Your task to perform on an android device: open a new tab in the chrome app Image 0: 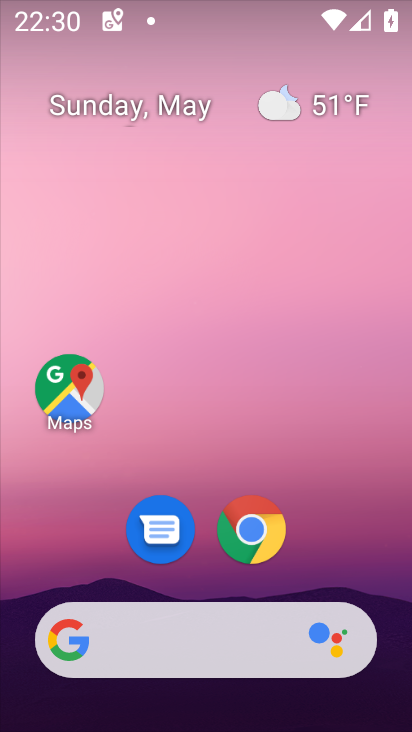
Step 0: drag from (245, 579) to (252, 28)
Your task to perform on an android device: open a new tab in the chrome app Image 1: 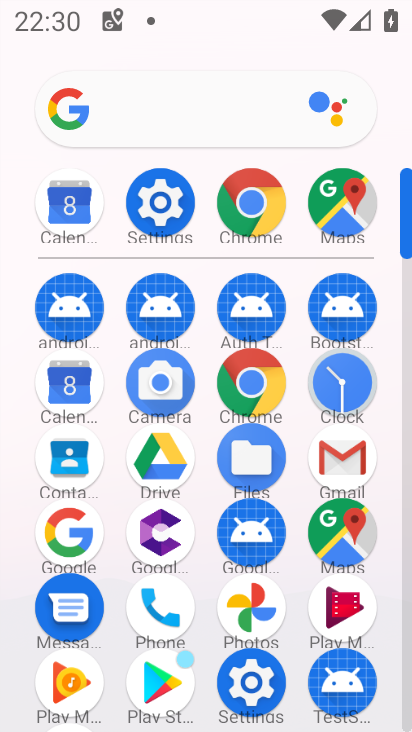
Step 1: click (255, 396)
Your task to perform on an android device: open a new tab in the chrome app Image 2: 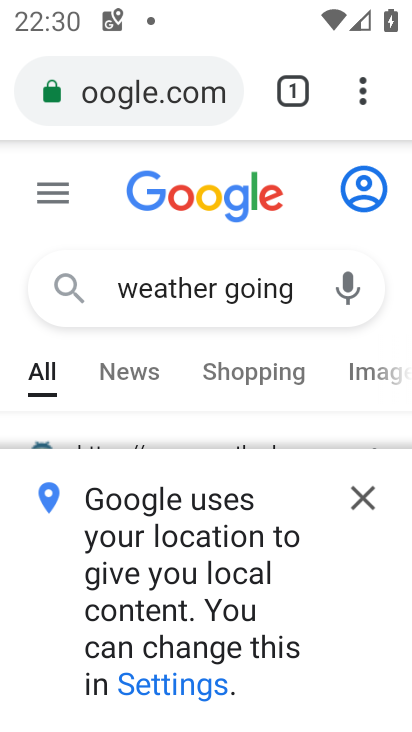
Step 2: task complete